Your task to perform on an android device: choose inbox layout in the gmail app Image 0: 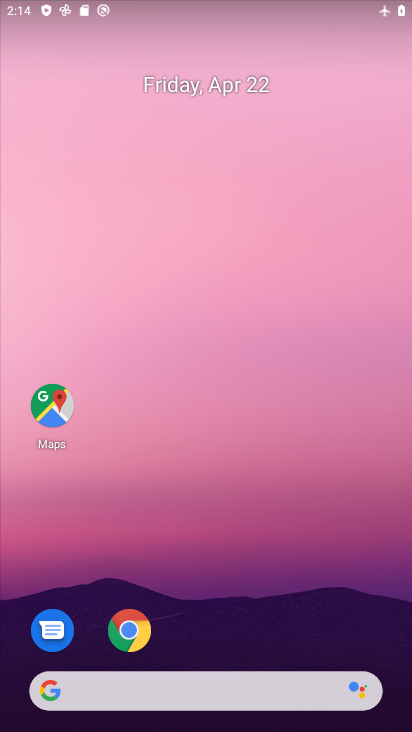
Step 0: drag from (390, 623) to (368, 184)
Your task to perform on an android device: choose inbox layout in the gmail app Image 1: 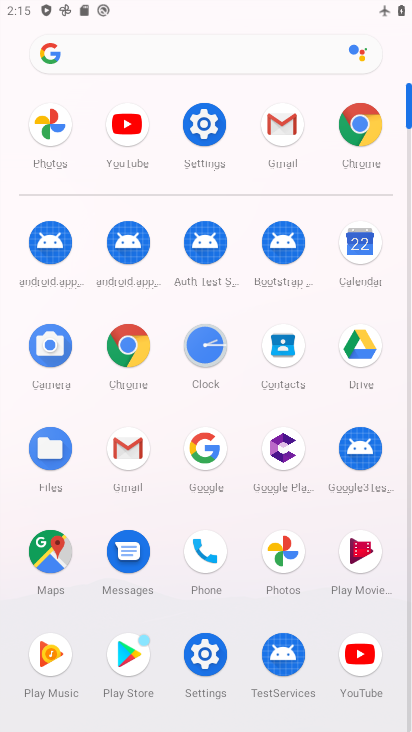
Step 1: click (124, 445)
Your task to perform on an android device: choose inbox layout in the gmail app Image 2: 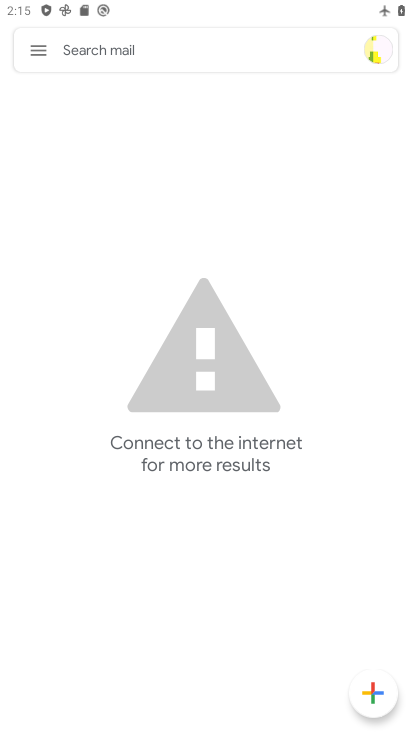
Step 2: click (31, 48)
Your task to perform on an android device: choose inbox layout in the gmail app Image 3: 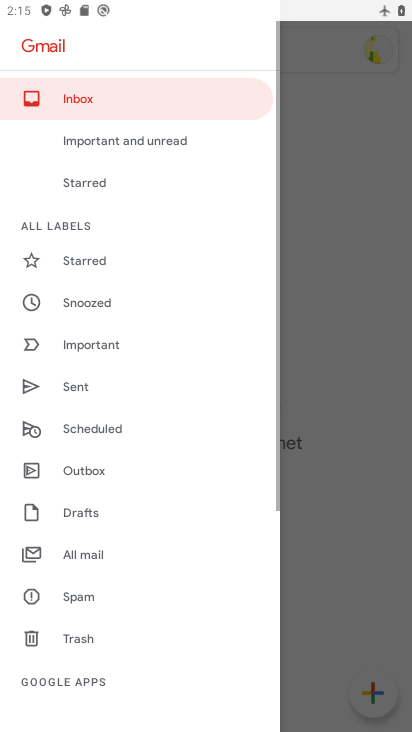
Step 3: drag from (91, 643) to (172, 319)
Your task to perform on an android device: choose inbox layout in the gmail app Image 4: 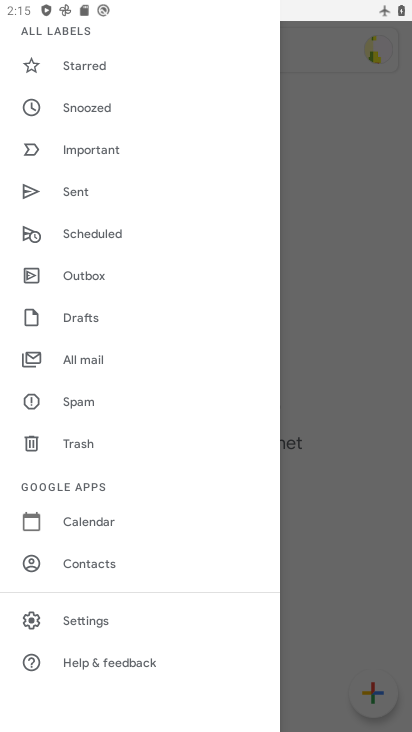
Step 4: click (96, 614)
Your task to perform on an android device: choose inbox layout in the gmail app Image 5: 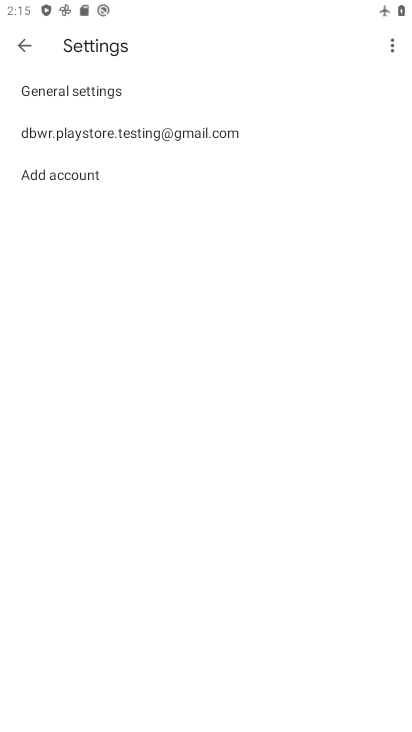
Step 5: click (115, 126)
Your task to perform on an android device: choose inbox layout in the gmail app Image 6: 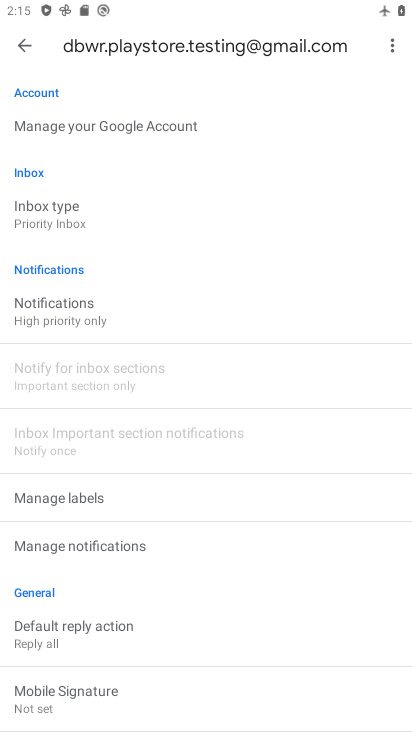
Step 6: click (74, 216)
Your task to perform on an android device: choose inbox layout in the gmail app Image 7: 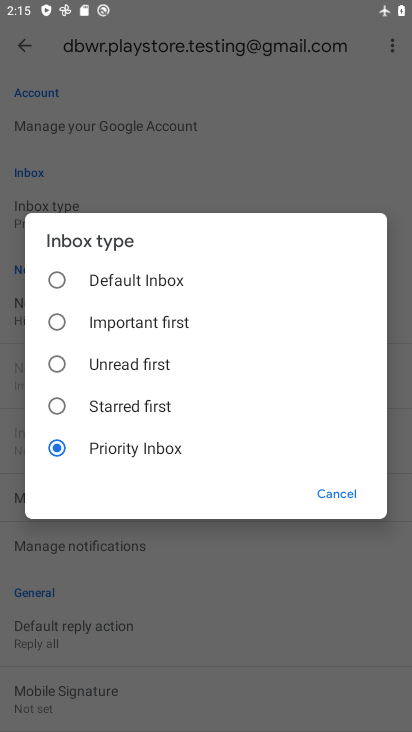
Step 7: click (144, 407)
Your task to perform on an android device: choose inbox layout in the gmail app Image 8: 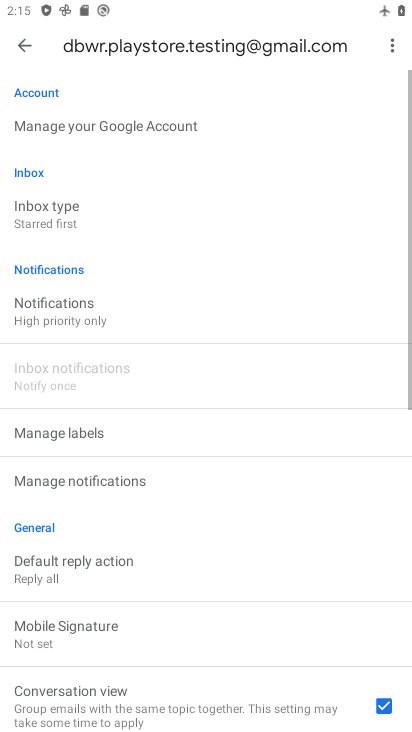
Step 8: task complete